Your task to perform on an android device: Open calendar and show me the fourth week of next month Image 0: 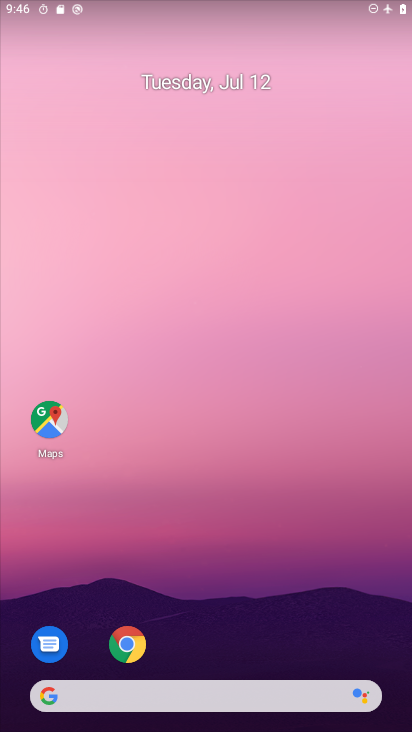
Step 0: drag from (207, 640) to (253, 91)
Your task to perform on an android device: Open calendar and show me the fourth week of next month Image 1: 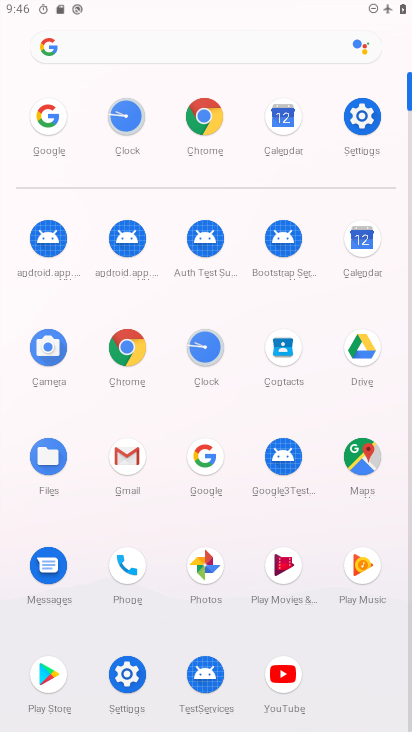
Step 1: click (273, 110)
Your task to perform on an android device: Open calendar and show me the fourth week of next month Image 2: 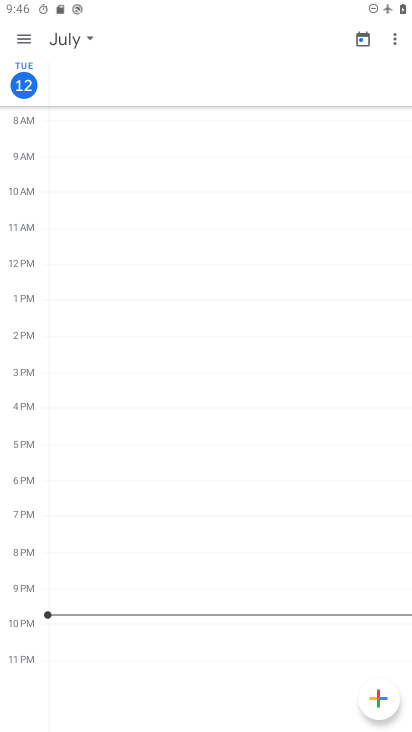
Step 2: click (81, 41)
Your task to perform on an android device: Open calendar and show me the fourth week of next month Image 3: 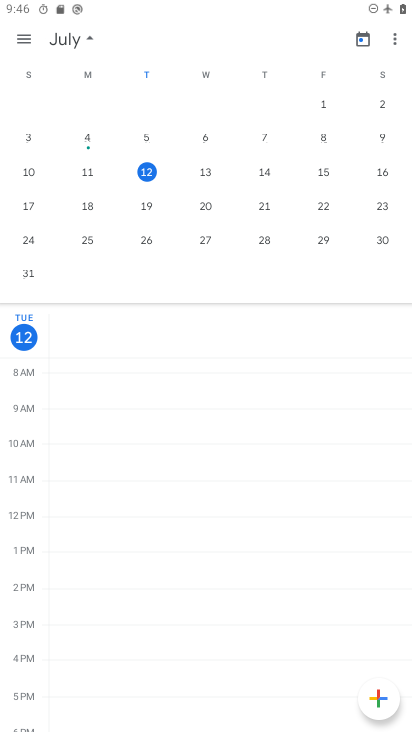
Step 3: drag from (304, 137) to (87, 146)
Your task to perform on an android device: Open calendar and show me the fourth week of next month Image 4: 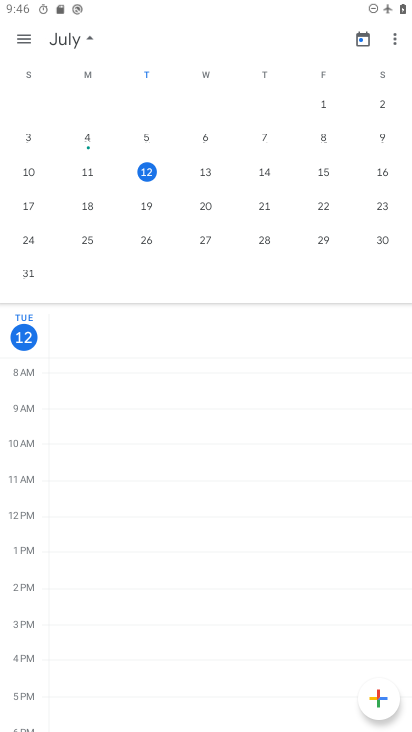
Step 4: drag from (357, 195) to (141, 177)
Your task to perform on an android device: Open calendar and show me the fourth week of next month Image 5: 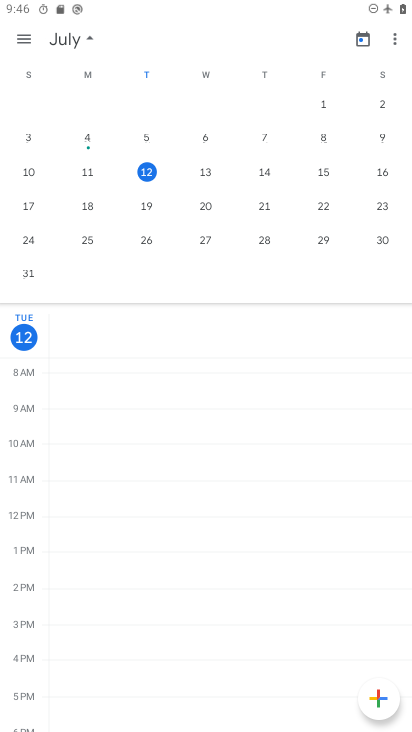
Step 5: drag from (348, 183) to (27, 157)
Your task to perform on an android device: Open calendar and show me the fourth week of next month Image 6: 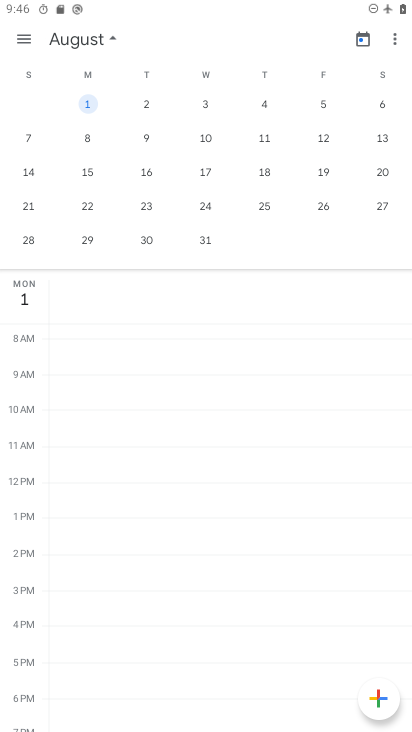
Step 6: click (22, 201)
Your task to perform on an android device: Open calendar and show me the fourth week of next month Image 7: 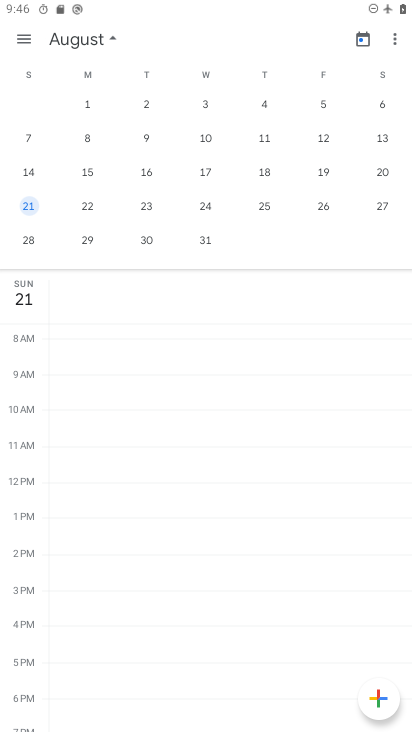
Step 7: task complete